Your task to perform on an android device: turn off airplane mode Image 0: 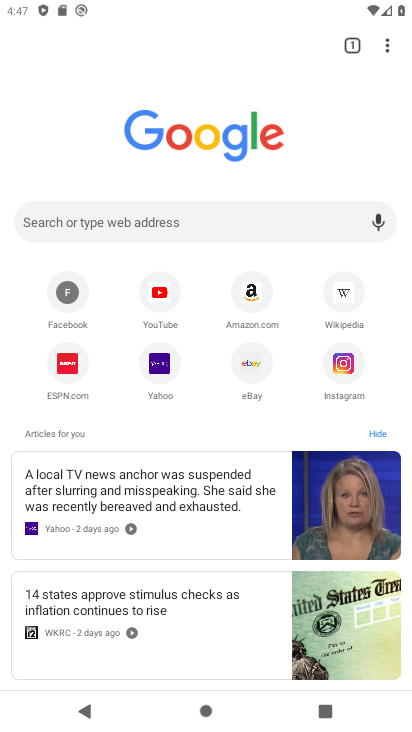
Step 0: press home button
Your task to perform on an android device: turn off airplane mode Image 1: 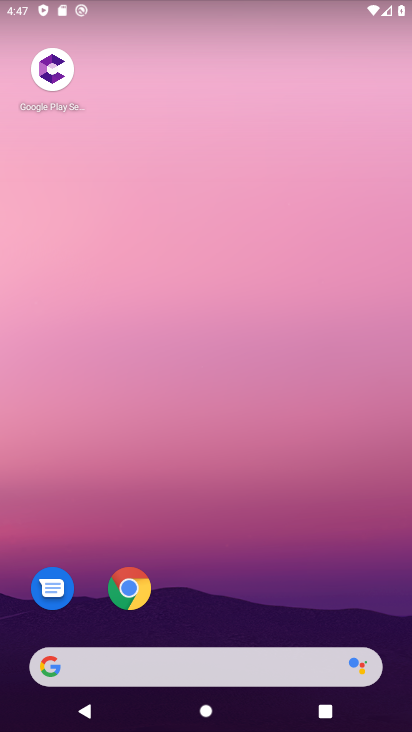
Step 1: drag from (152, 0) to (231, 682)
Your task to perform on an android device: turn off airplane mode Image 2: 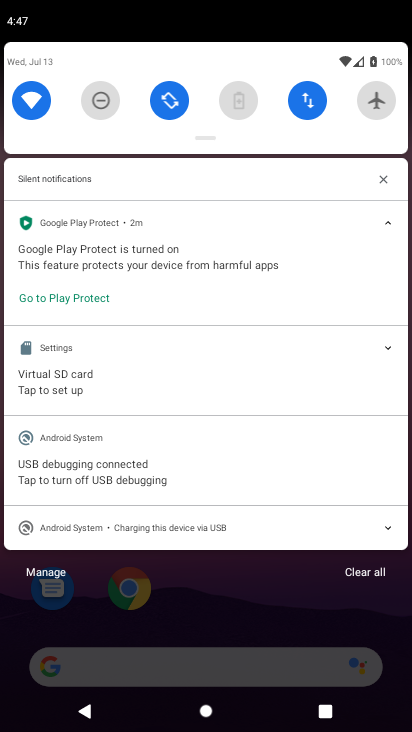
Step 2: click (365, 96)
Your task to perform on an android device: turn off airplane mode Image 3: 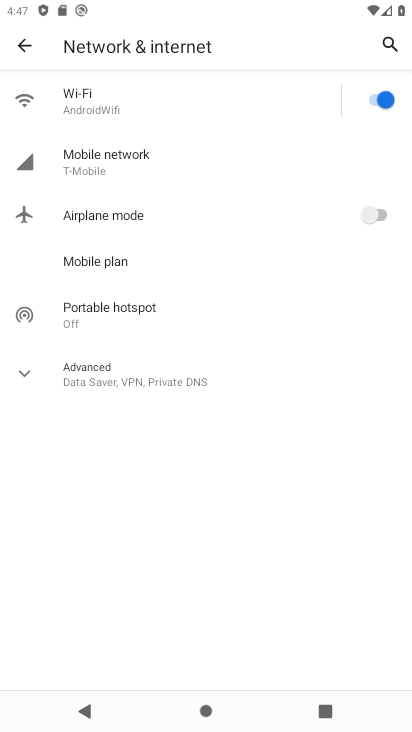
Step 3: click (152, 221)
Your task to perform on an android device: turn off airplane mode Image 4: 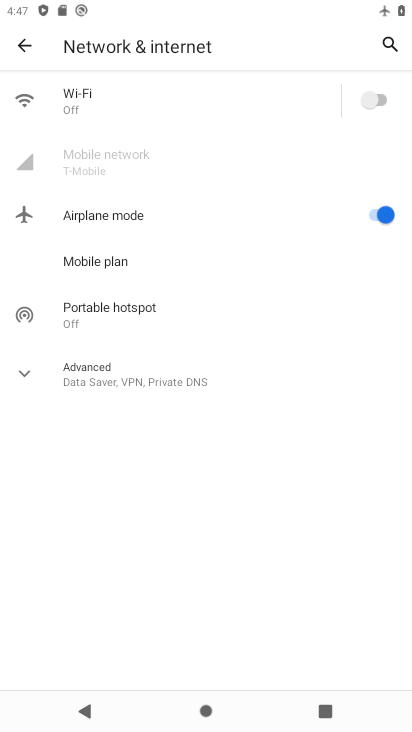
Step 4: task complete